Your task to perform on an android device: toggle location history Image 0: 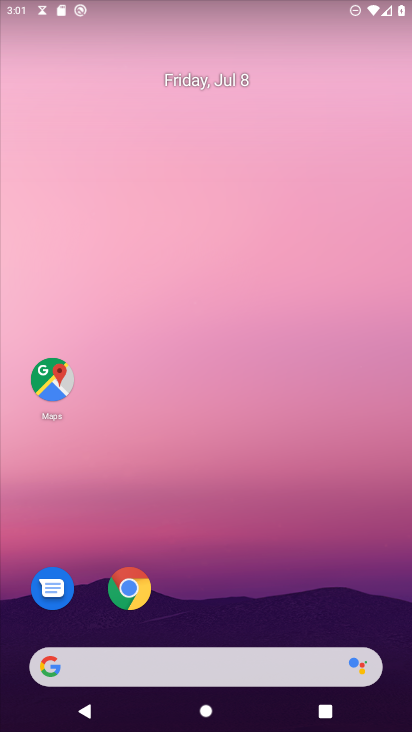
Step 0: drag from (219, 586) to (248, 122)
Your task to perform on an android device: toggle location history Image 1: 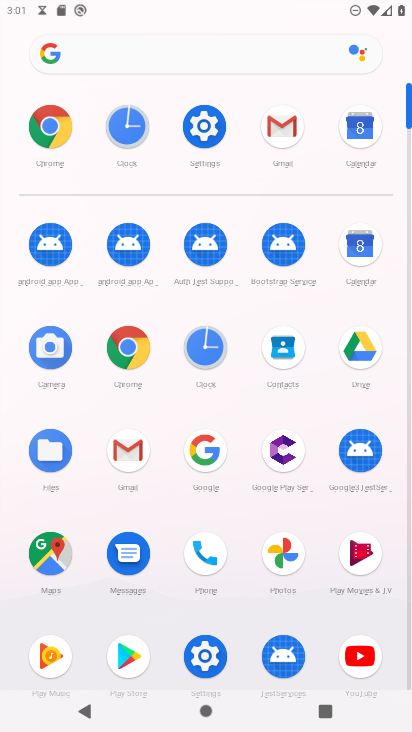
Step 1: click (201, 134)
Your task to perform on an android device: toggle location history Image 2: 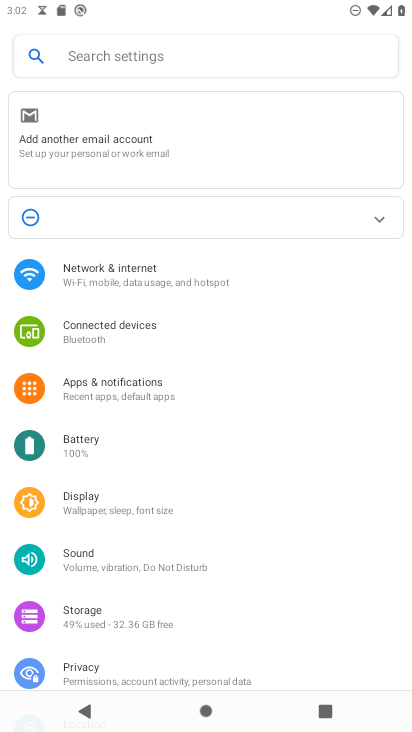
Step 2: drag from (112, 607) to (112, 152)
Your task to perform on an android device: toggle location history Image 3: 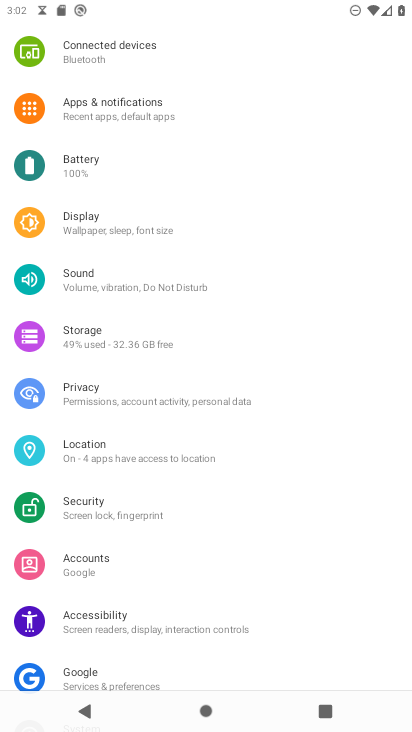
Step 3: click (76, 448)
Your task to perform on an android device: toggle location history Image 4: 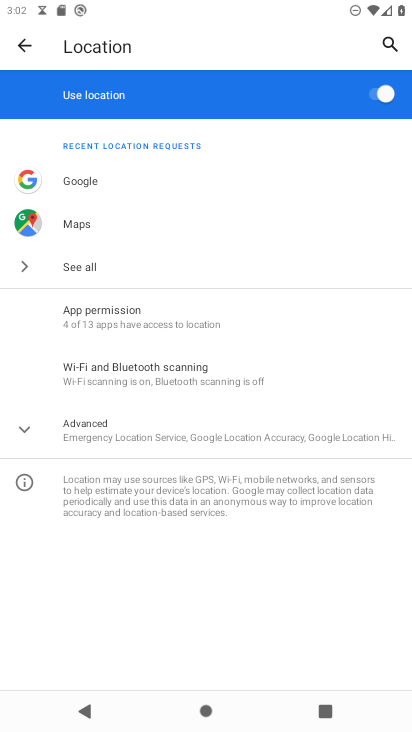
Step 4: click (107, 432)
Your task to perform on an android device: toggle location history Image 5: 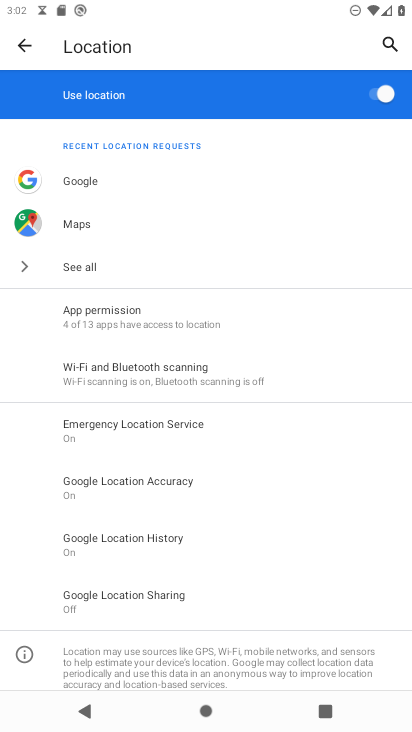
Step 5: click (133, 543)
Your task to perform on an android device: toggle location history Image 6: 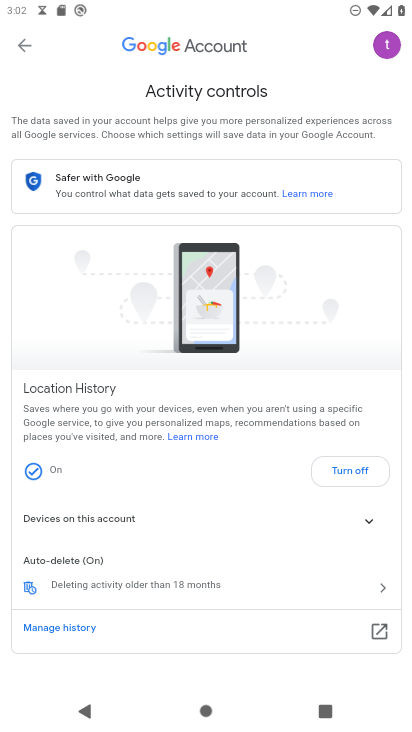
Step 6: click (353, 468)
Your task to perform on an android device: toggle location history Image 7: 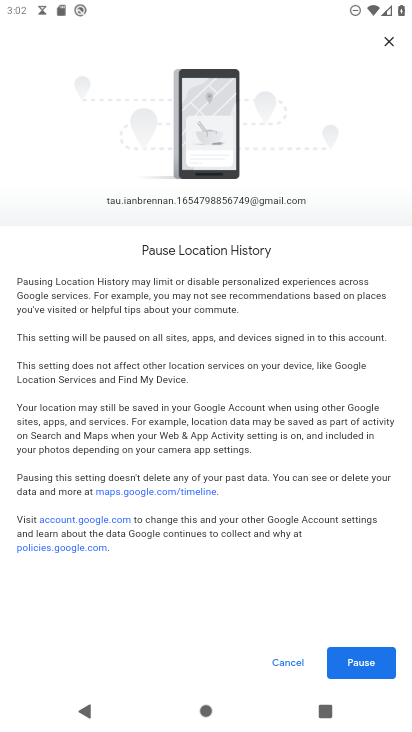
Step 7: click (358, 669)
Your task to perform on an android device: toggle location history Image 8: 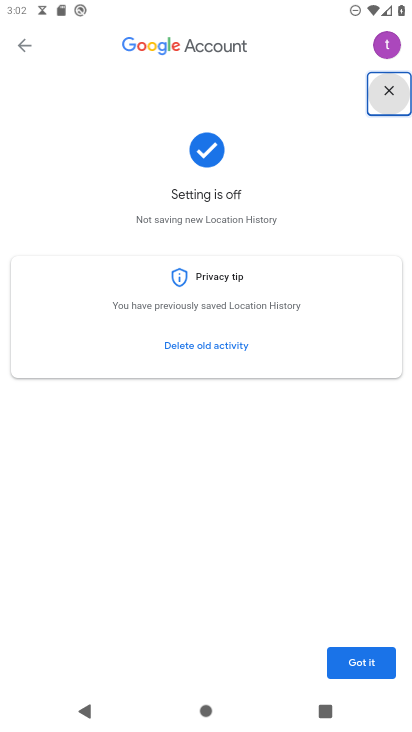
Step 8: click (358, 669)
Your task to perform on an android device: toggle location history Image 9: 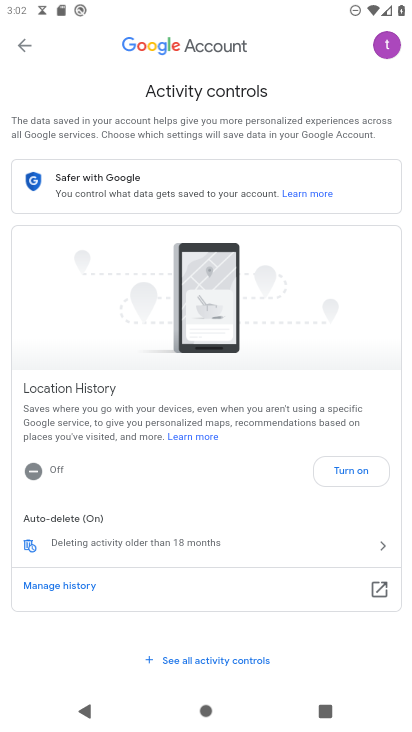
Step 9: task complete